Your task to perform on an android device: What's the weather today? Image 0: 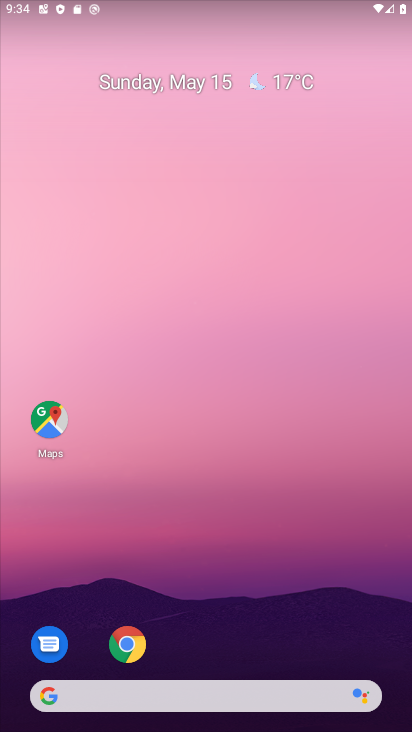
Step 0: drag from (215, 712) to (282, 158)
Your task to perform on an android device: What's the weather today? Image 1: 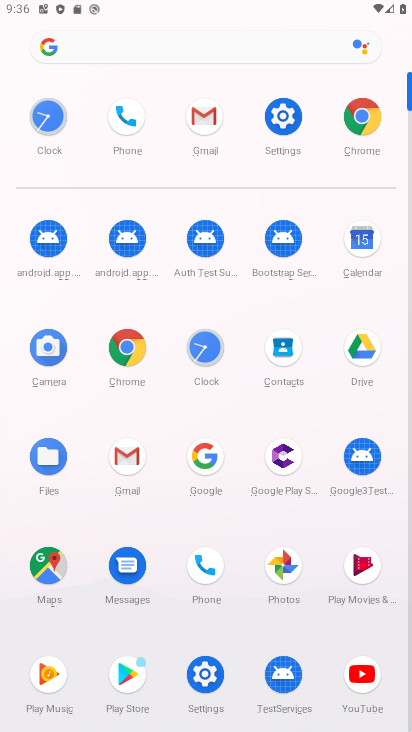
Step 1: click (141, 44)
Your task to perform on an android device: What's the weather today? Image 2: 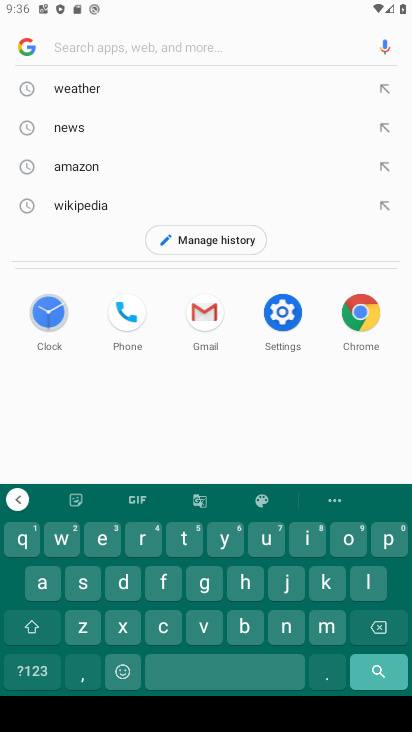
Step 2: click (97, 84)
Your task to perform on an android device: What's the weather today? Image 3: 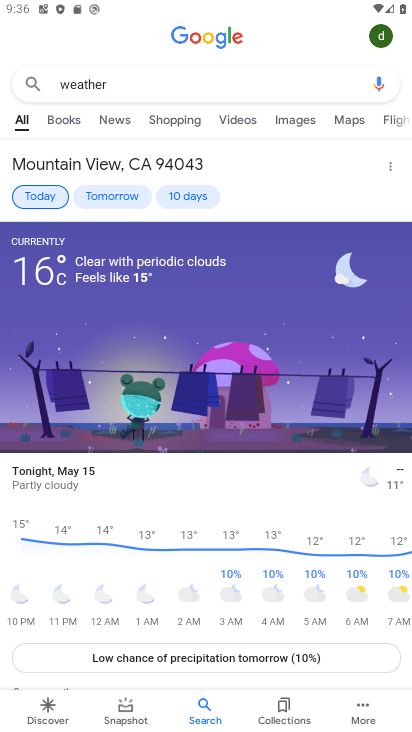
Step 3: task complete